Your task to perform on an android device: Go to internet settings Image 0: 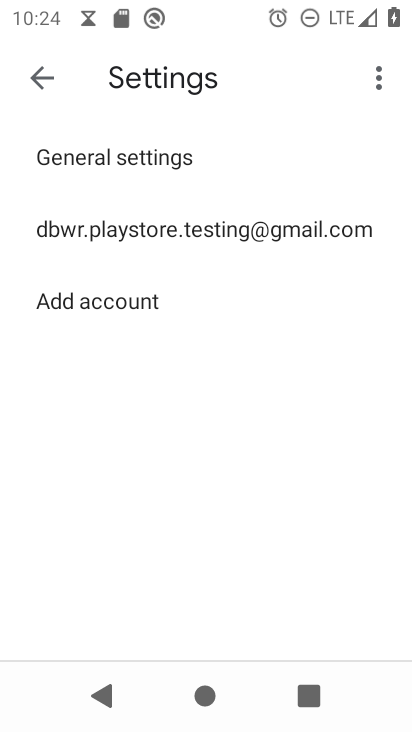
Step 0: press home button
Your task to perform on an android device: Go to internet settings Image 1: 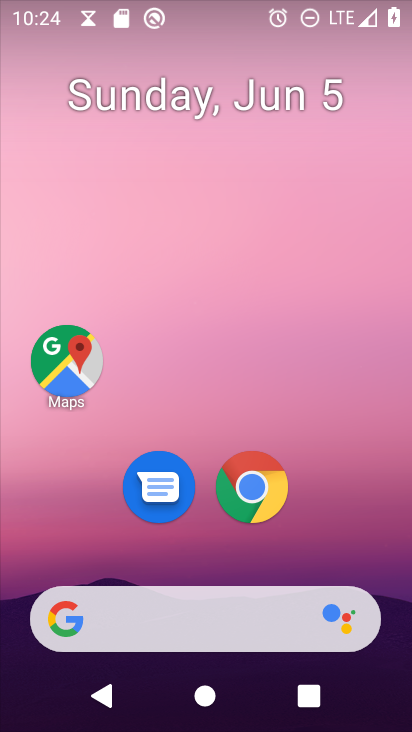
Step 1: drag from (211, 427) to (211, 195)
Your task to perform on an android device: Go to internet settings Image 2: 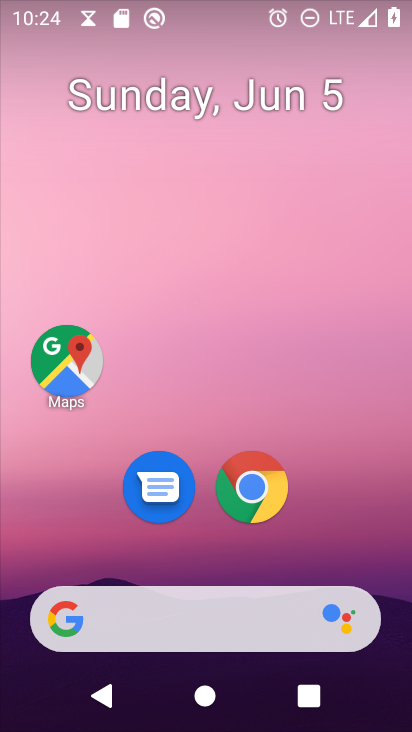
Step 2: drag from (172, 557) to (216, 166)
Your task to perform on an android device: Go to internet settings Image 3: 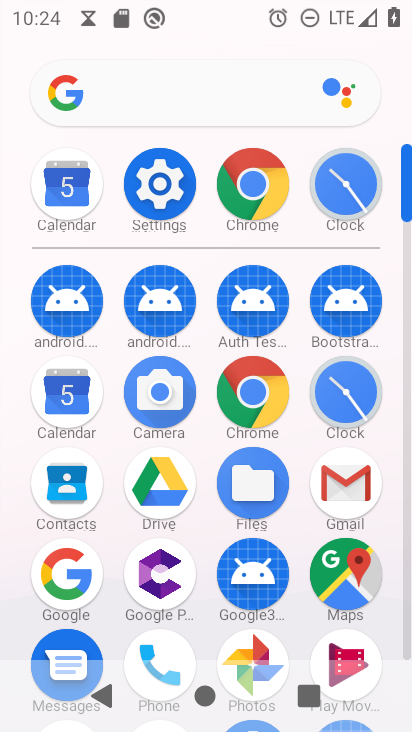
Step 3: click (161, 153)
Your task to perform on an android device: Go to internet settings Image 4: 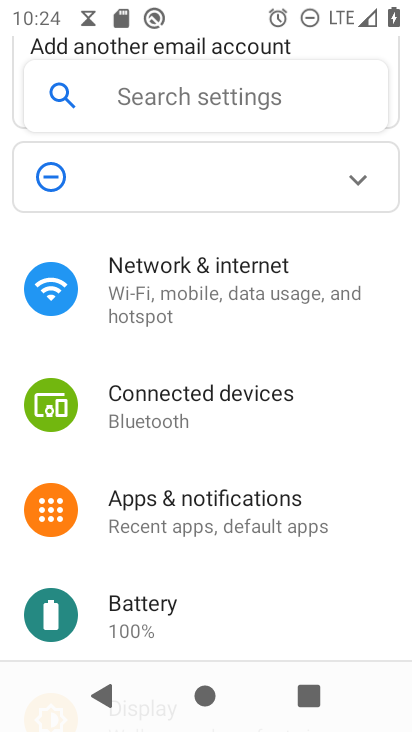
Step 4: click (230, 283)
Your task to perform on an android device: Go to internet settings Image 5: 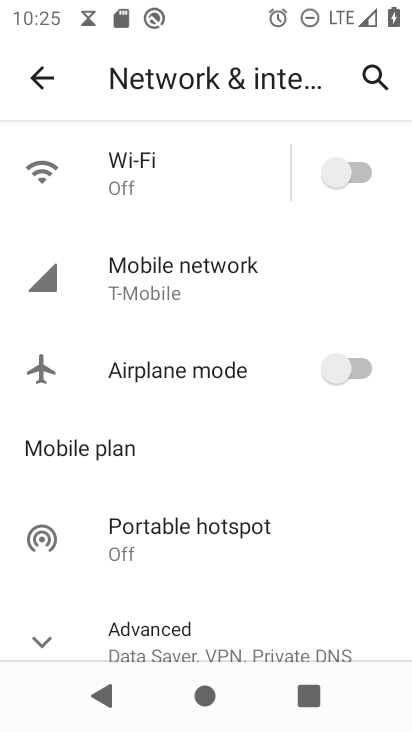
Step 5: task complete